Your task to perform on an android device: turn vacation reply on in the gmail app Image 0: 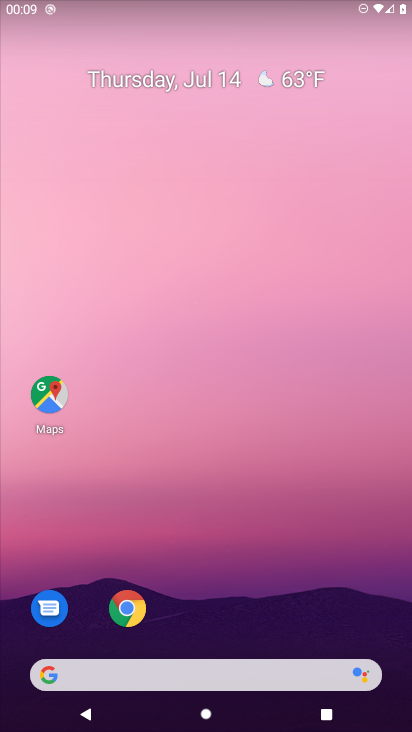
Step 0: drag from (237, 532) to (254, 170)
Your task to perform on an android device: turn vacation reply on in the gmail app Image 1: 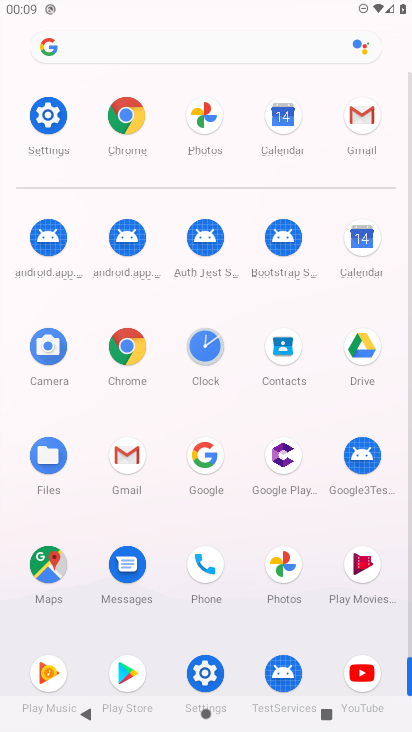
Step 1: click (363, 119)
Your task to perform on an android device: turn vacation reply on in the gmail app Image 2: 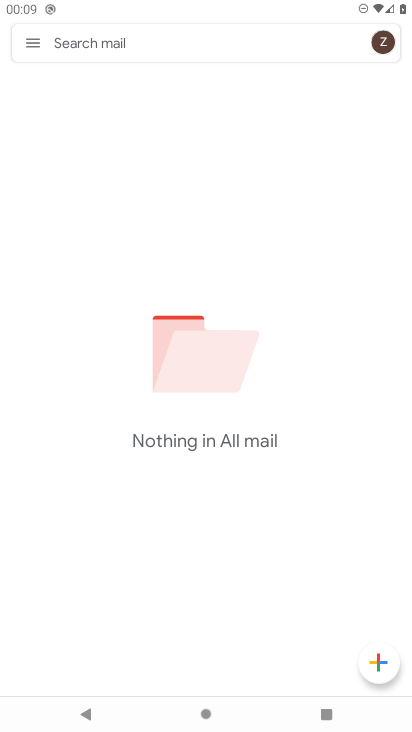
Step 2: click (33, 51)
Your task to perform on an android device: turn vacation reply on in the gmail app Image 3: 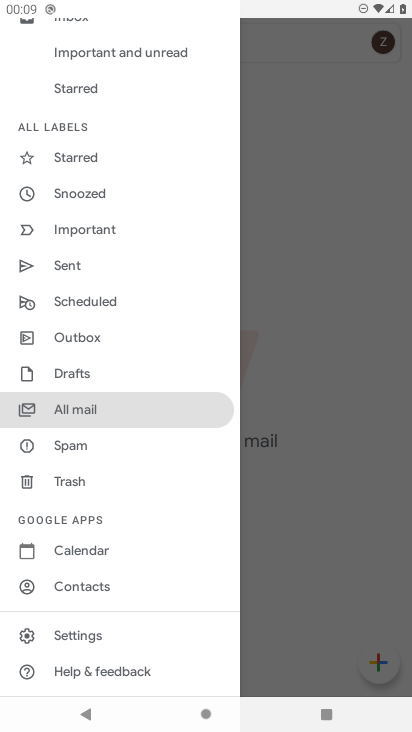
Step 3: click (77, 636)
Your task to perform on an android device: turn vacation reply on in the gmail app Image 4: 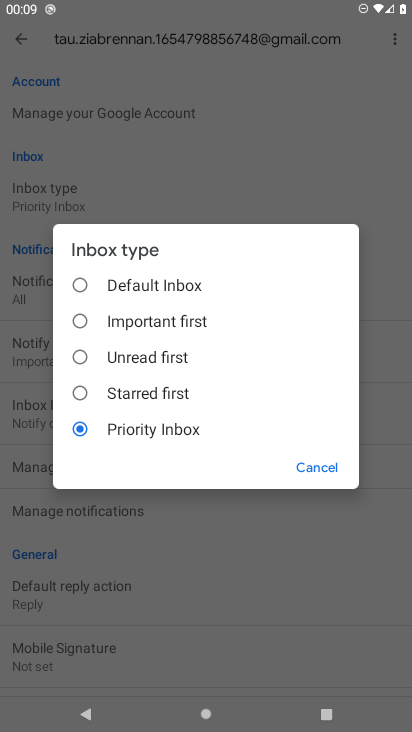
Step 4: click (311, 462)
Your task to perform on an android device: turn vacation reply on in the gmail app Image 5: 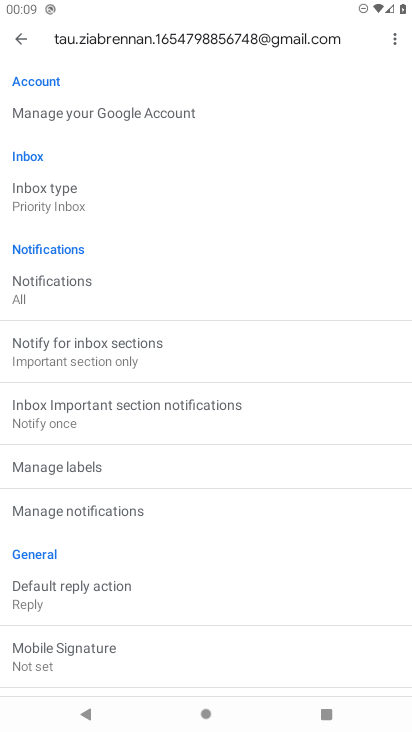
Step 5: drag from (337, 564) to (338, 12)
Your task to perform on an android device: turn vacation reply on in the gmail app Image 6: 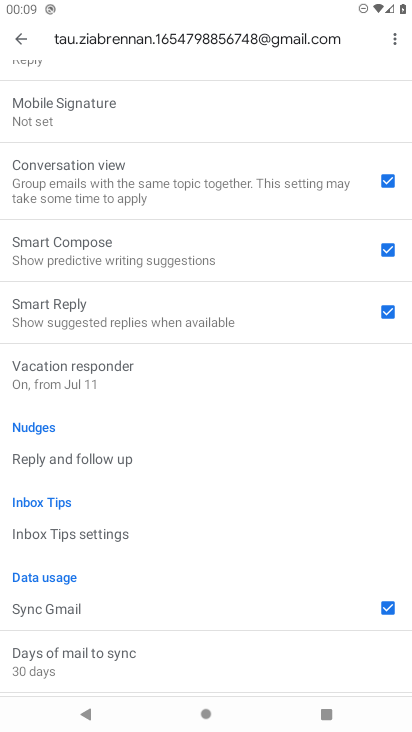
Step 6: drag from (346, 506) to (305, 99)
Your task to perform on an android device: turn vacation reply on in the gmail app Image 7: 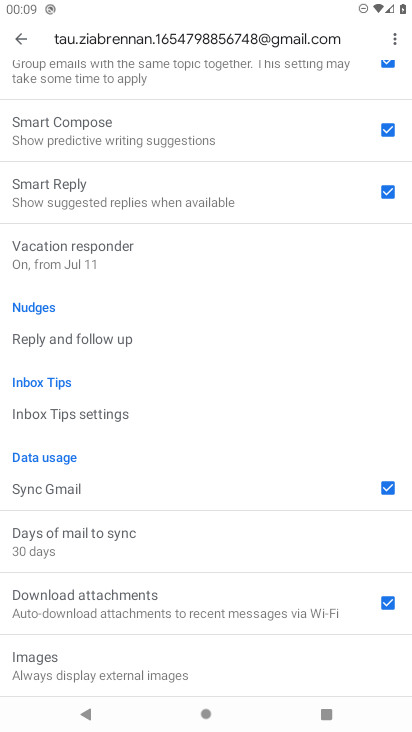
Step 7: drag from (271, 246) to (272, 295)
Your task to perform on an android device: turn vacation reply on in the gmail app Image 8: 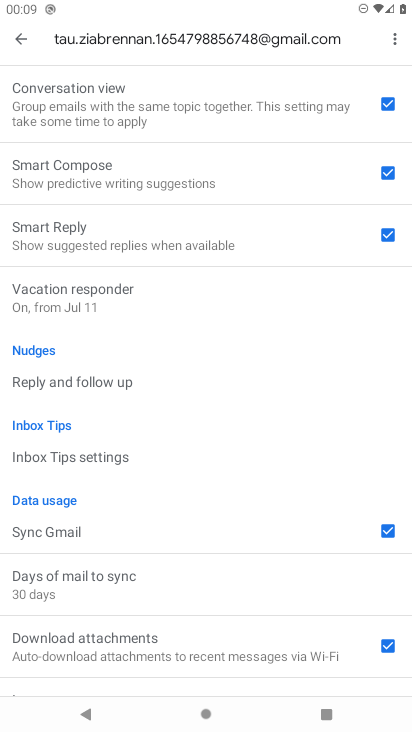
Step 8: click (81, 295)
Your task to perform on an android device: turn vacation reply on in the gmail app Image 9: 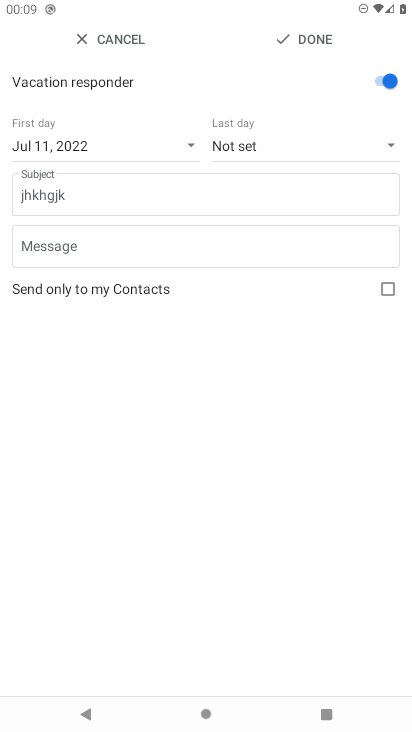
Step 9: task complete